Your task to perform on an android device: open app "Airtel Thanks" Image 0: 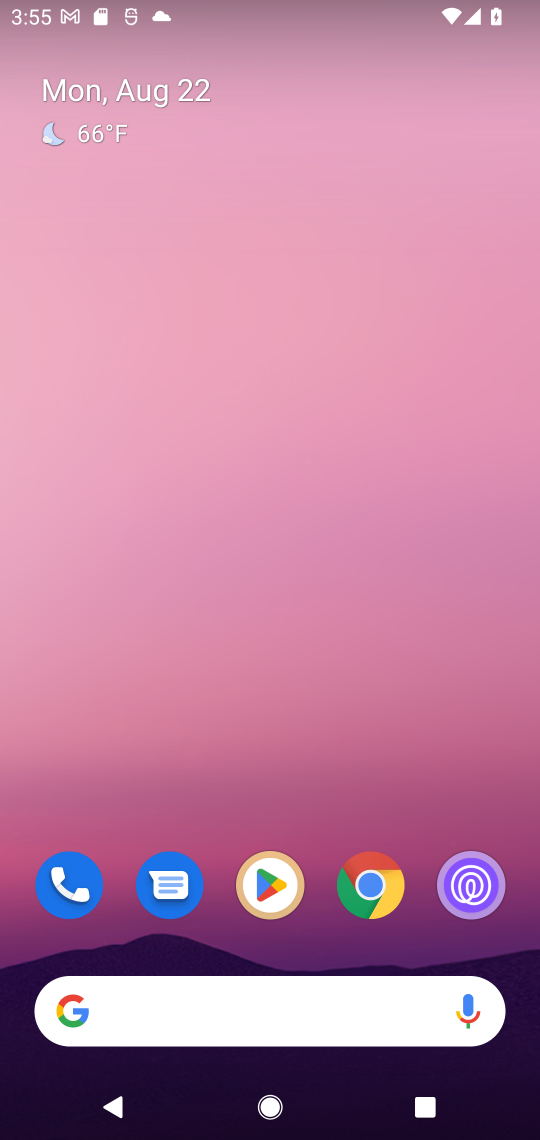
Step 0: click (265, 880)
Your task to perform on an android device: open app "Airtel Thanks" Image 1: 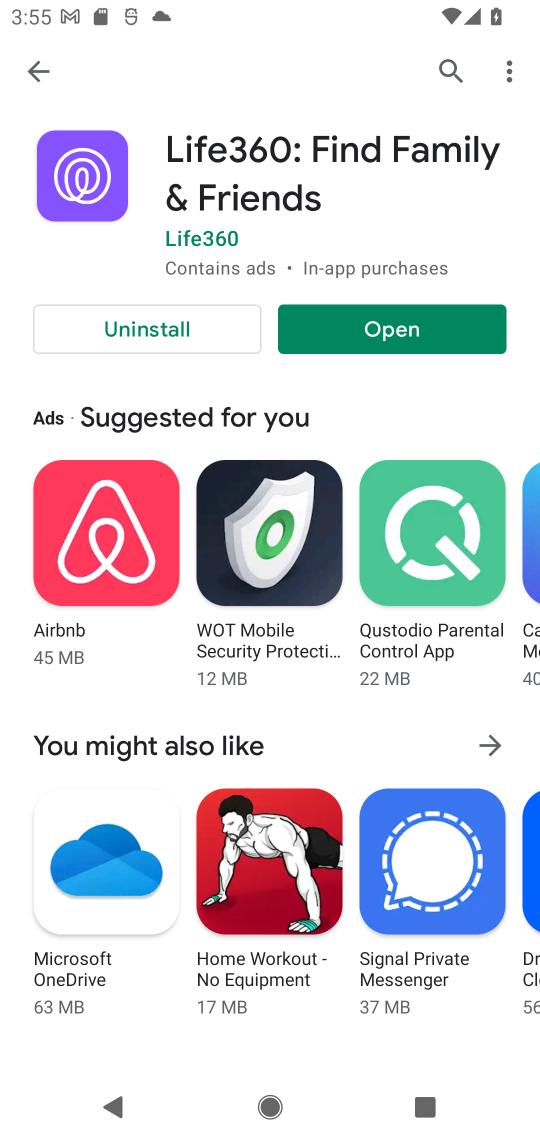
Step 1: click (444, 66)
Your task to perform on an android device: open app "Airtel Thanks" Image 2: 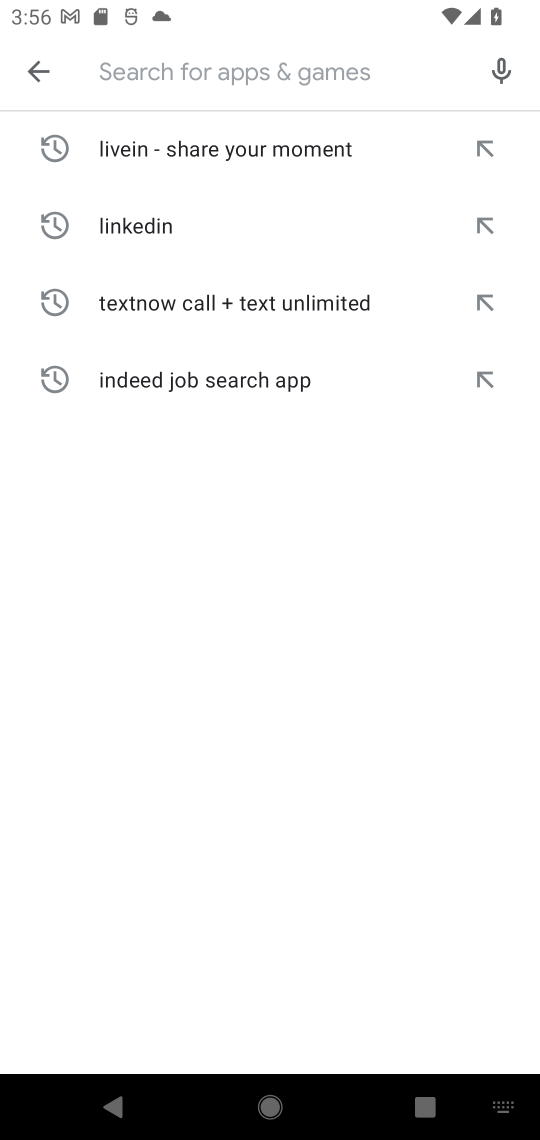
Step 2: type "Airtel Thanks"
Your task to perform on an android device: open app "Airtel Thanks" Image 3: 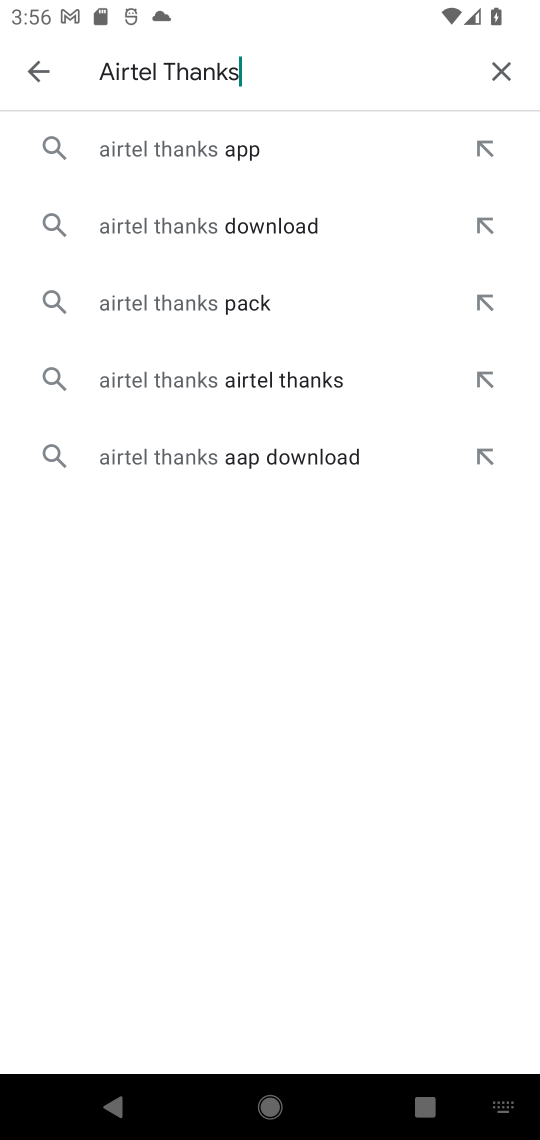
Step 3: click (207, 136)
Your task to perform on an android device: open app "Airtel Thanks" Image 4: 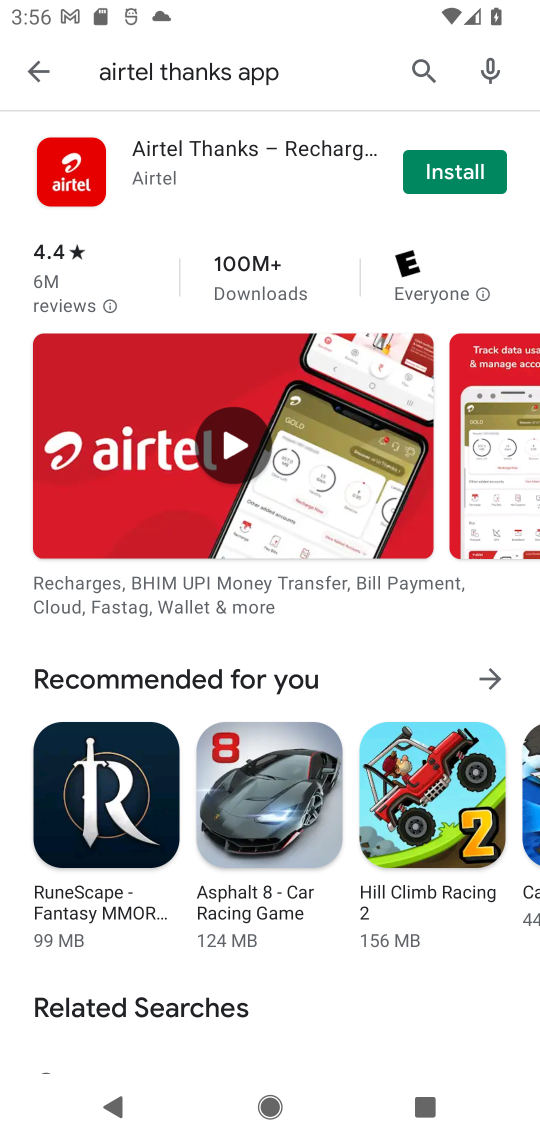
Step 4: task complete